Your task to perform on an android device: Open Maps and search for coffee Image 0: 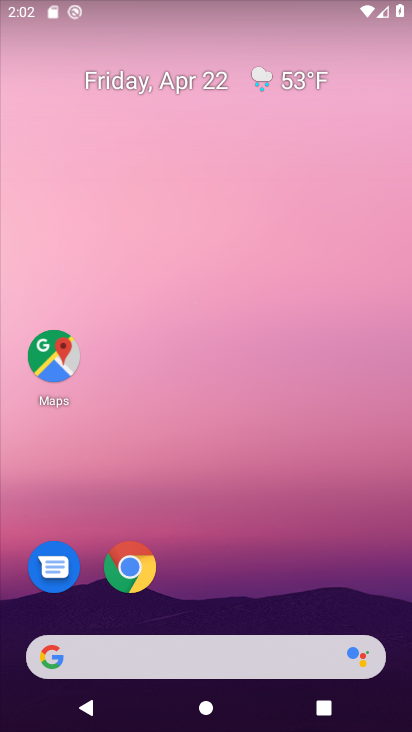
Step 0: click (48, 352)
Your task to perform on an android device: Open Maps and search for coffee Image 1: 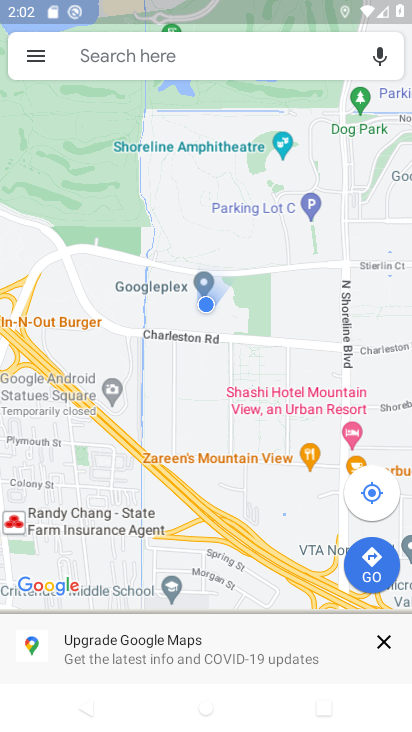
Step 1: click (201, 56)
Your task to perform on an android device: Open Maps and search for coffee Image 2: 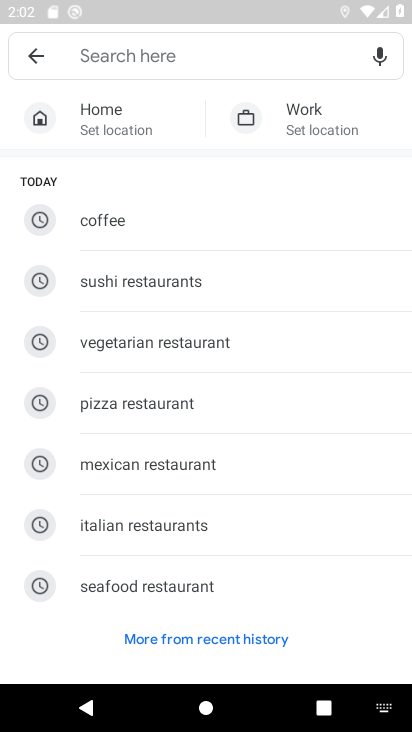
Step 2: click (131, 217)
Your task to perform on an android device: Open Maps and search for coffee Image 3: 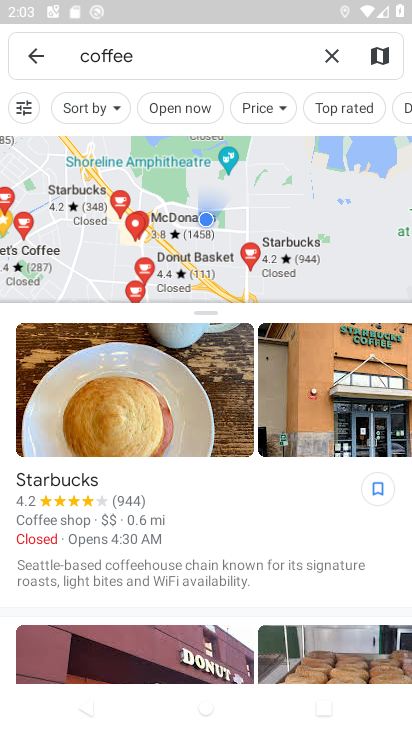
Step 3: task complete